Your task to perform on an android device: Open settings Image 0: 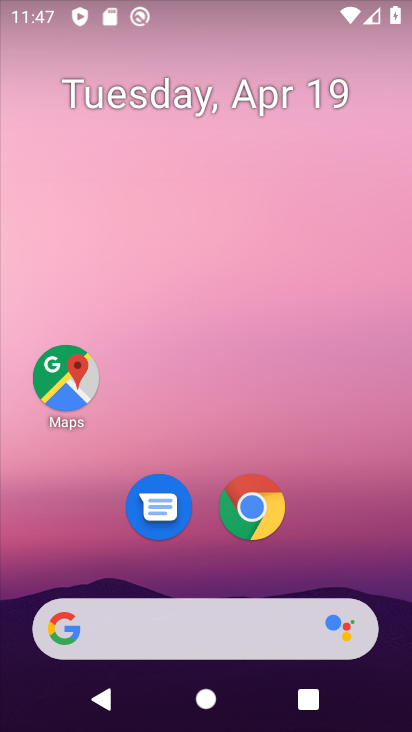
Step 0: drag from (360, 553) to (353, 136)
Your task to perform on an android device: Open settings Image 1: 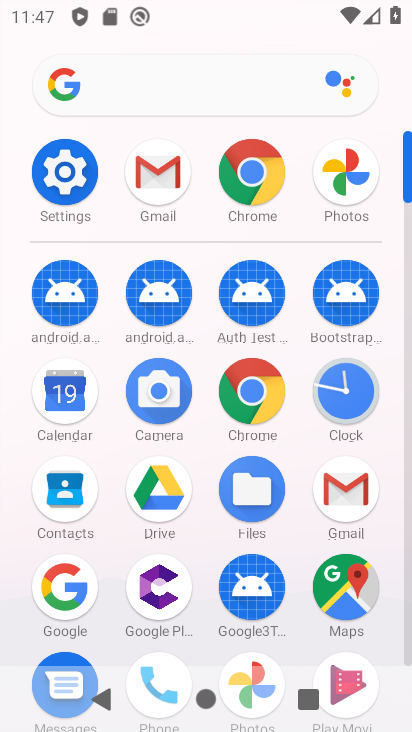
Step 1: click (45, 193)
Your task to perform on an android device: Open settings Image 2: 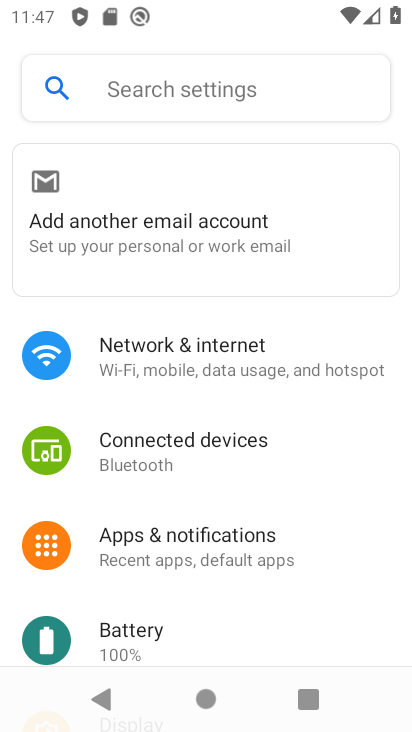
Step 2: task complete